Your task to perform on an android device: Open Google Chrome Image 0: 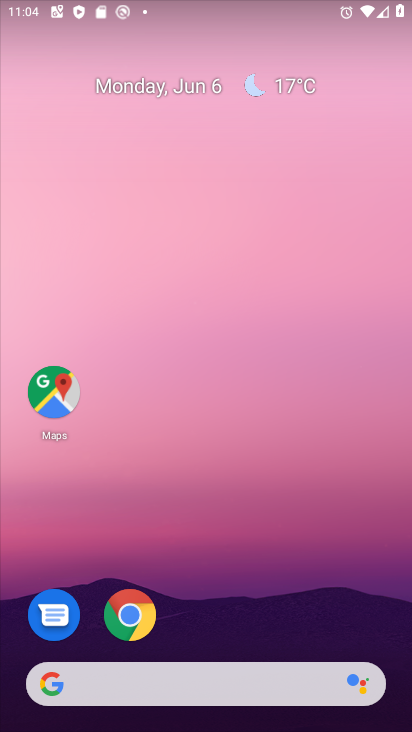
Step 0: press home button
Your task to perform on an android device: Open Google Chrome Image 1: 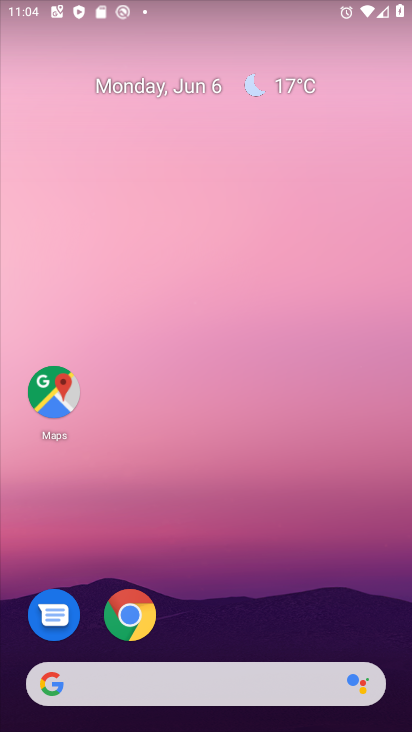
Step 1: press home button
Your task to perform on an android device: Open Google Chrome Image 2: 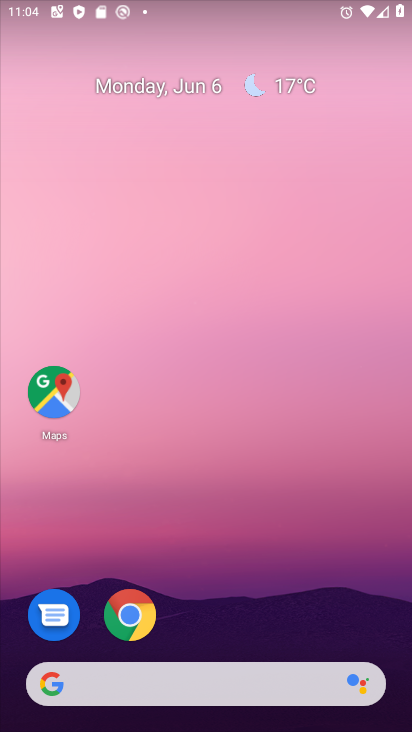
Step 2: click (131, 613)
Your task to perform on an android device: Open Google Chrome Image 3: 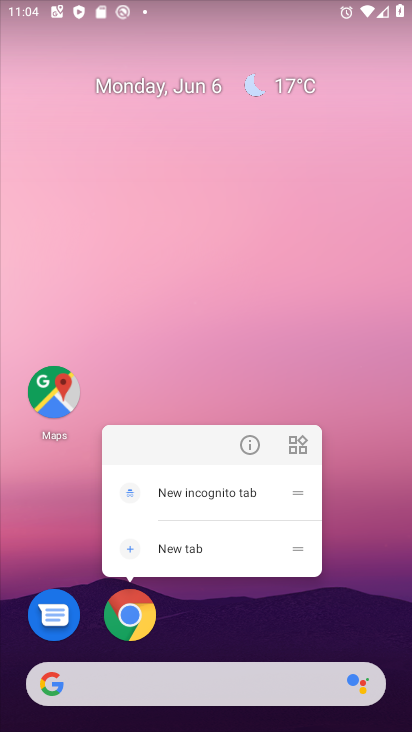
Step 3: click (131, 613)
Your task to perform on an android device: Open Google Chrome Image 4: 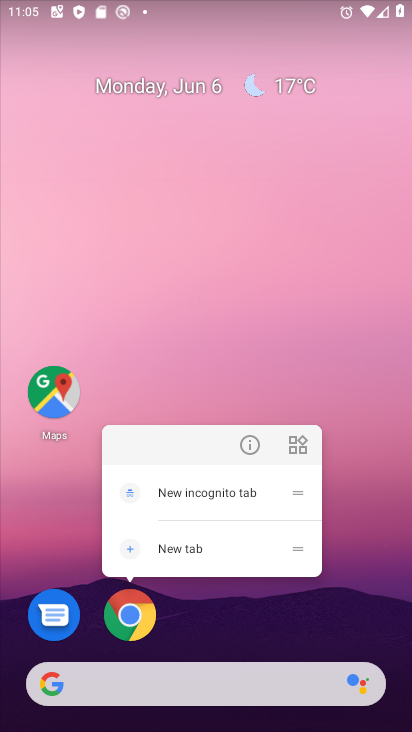
Step 4: click (131, 613)
Your task to perform on an android device: Open Google Chrome Image 5: 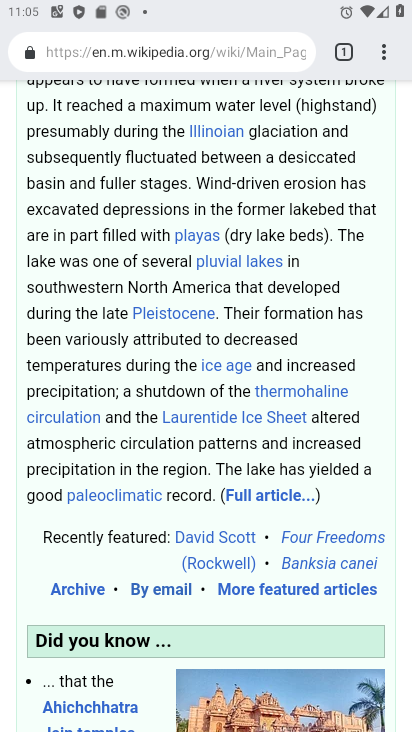
Step 5: click (340, 50)
Your task to perform on an android device: Open Google Chrome Image 6: 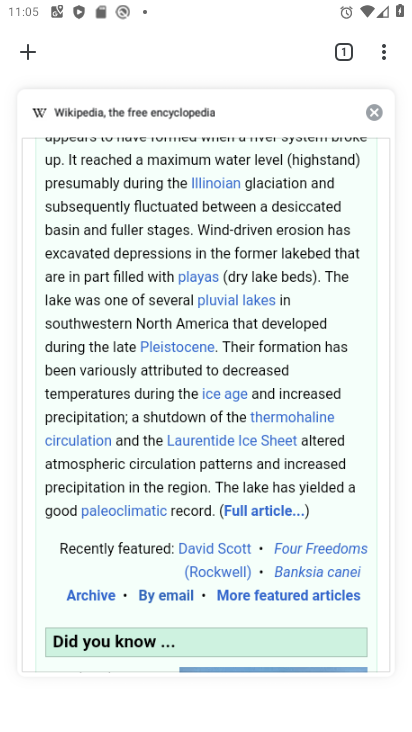
Step 6: click (372, 109)
Your task to perform on an android device: Open Google Chrome Image 7: 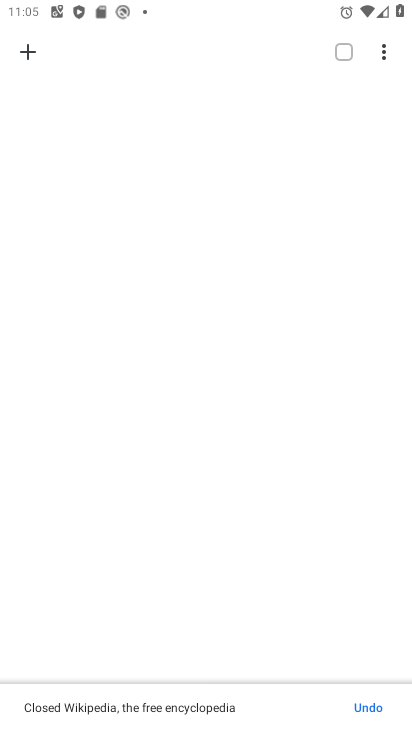
Step 7: click (36, 50)
Your task to perform on an android device: Open Google Chrome Image 8: 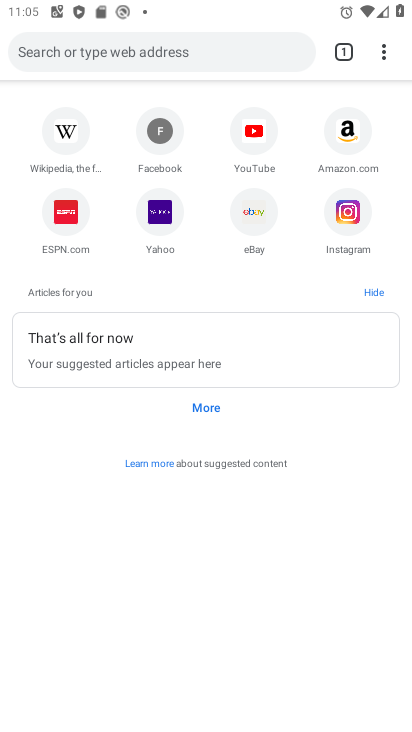
Step 8: task complete